Your task to perform on an android device: toggle location history Image 0: 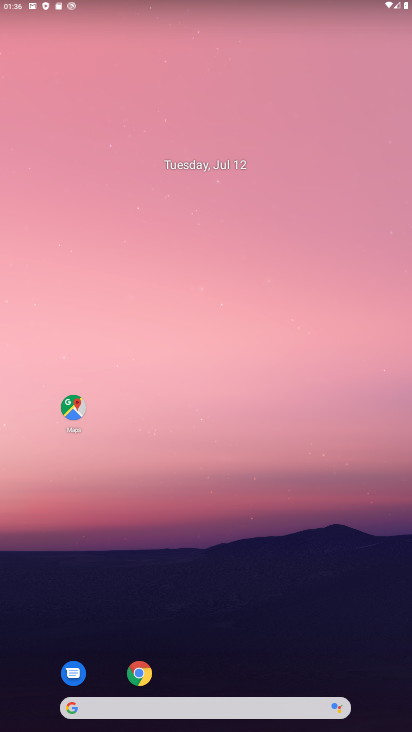
Step 0: press home button
Your task to perform on an android device: toggle location history Image 1: 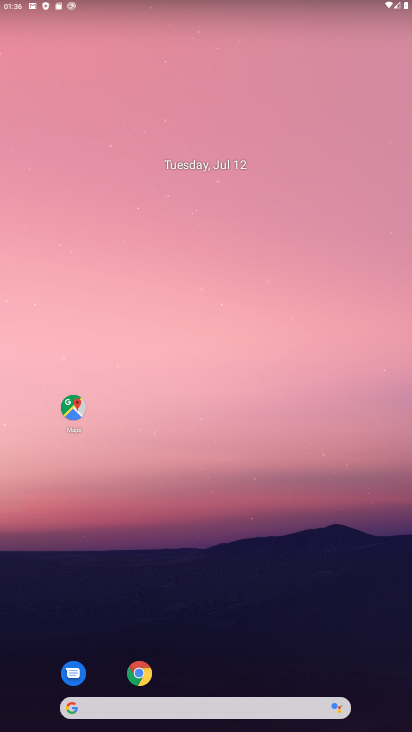
Step 1: drag from (278, 599) to (301, 53)
Your task to perform on an android device: toggle location history Image 2: 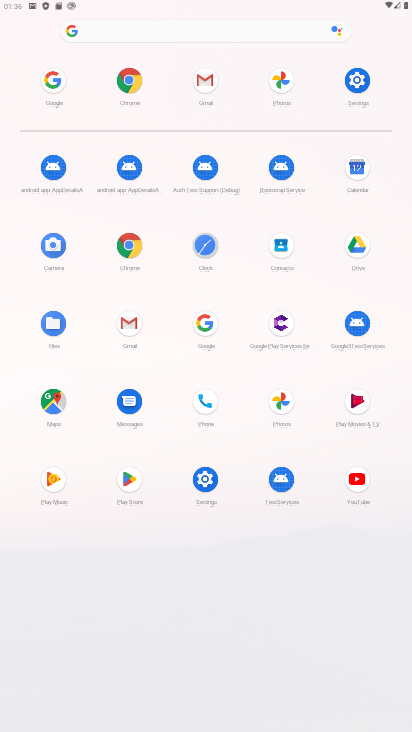
Step 2: click (362, 78)
Your task to perform on an android device: toggle location history Image 3: 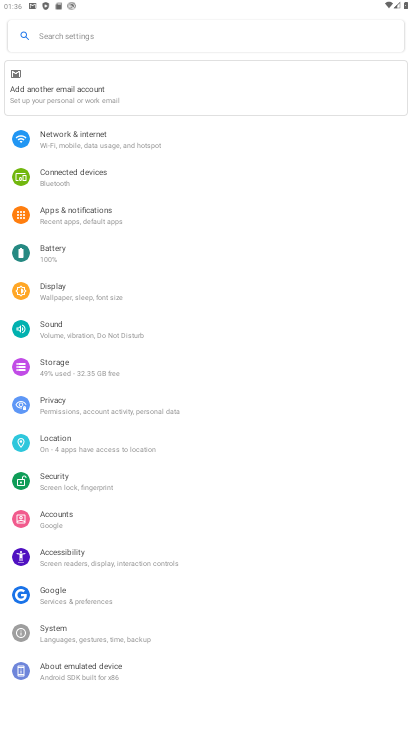
Step 3: click (102, 450)
Your task to perform on an android device: toggle location history Image 4: 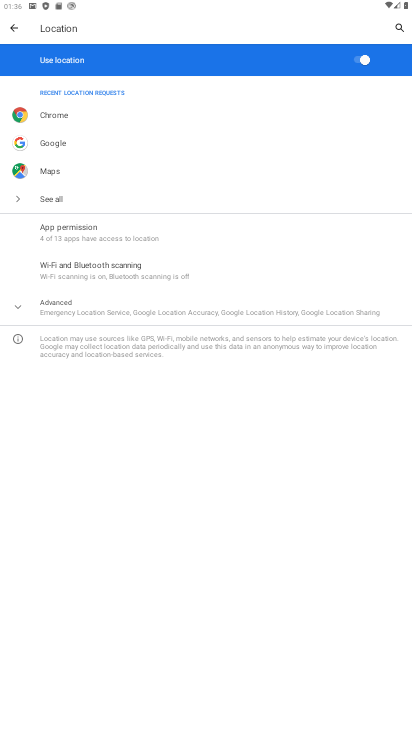
Step 4: click (16, 306)
Your task to perform on an android device: toggle location history Image 5: 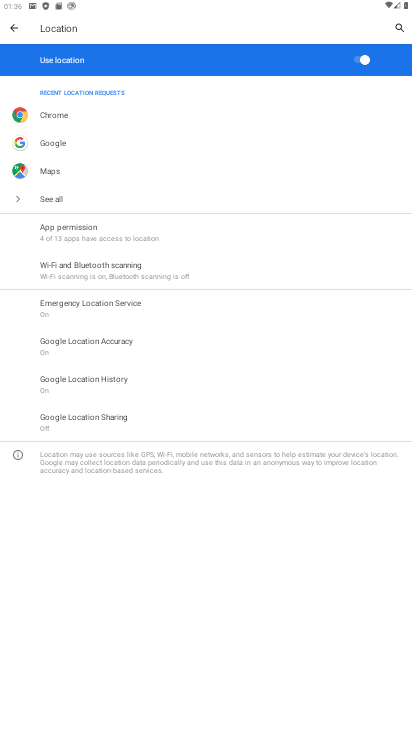
Step 5: click (62, 385)
Your task to perform on an android device: toggle location history Image 6: 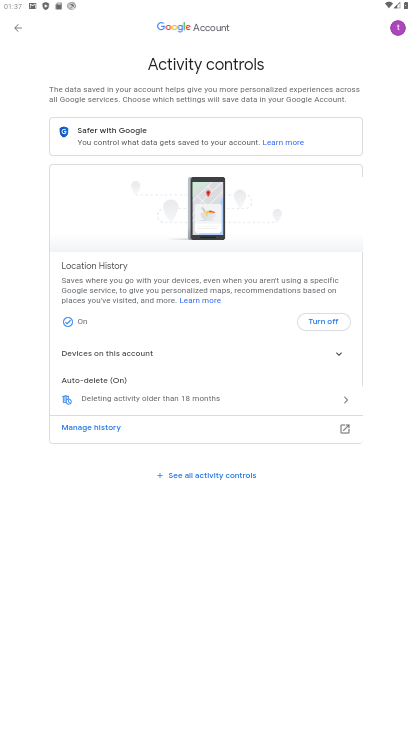
Step 6: click (315, 318)
Your task to perform on an android device: toggle location history Image 7: 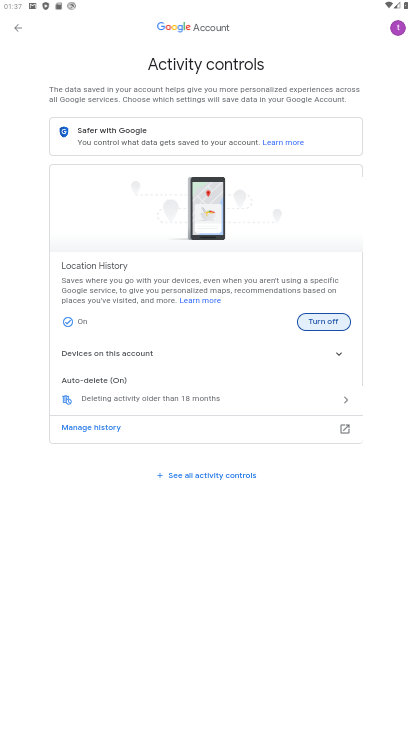
Step 7: click (318, 318)
Your task to perform on an android device: toggle location history Image 8: 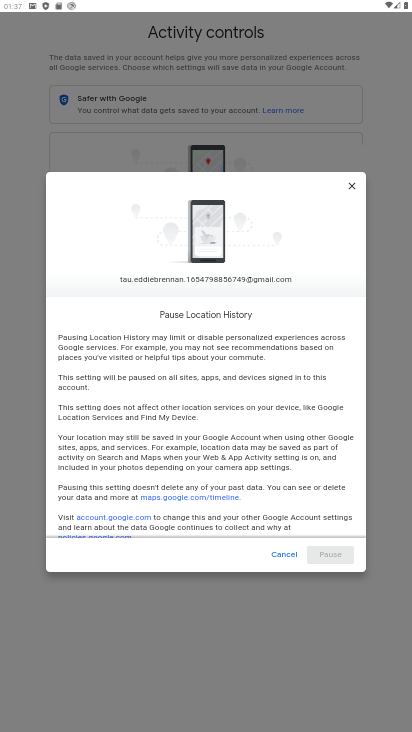
Step 8: click (333, 552)
Your task to perform on an android device: toggle location history Image 9: 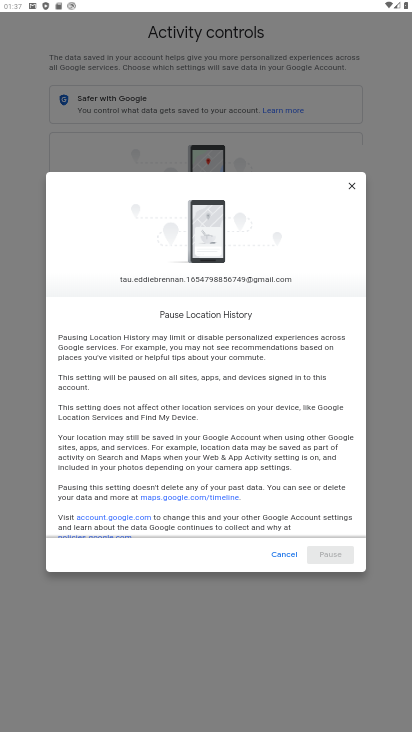
Step 9: drag from (307, 505) to (303, 207)
Your task to perform on an android device: toggle location history Image 10: 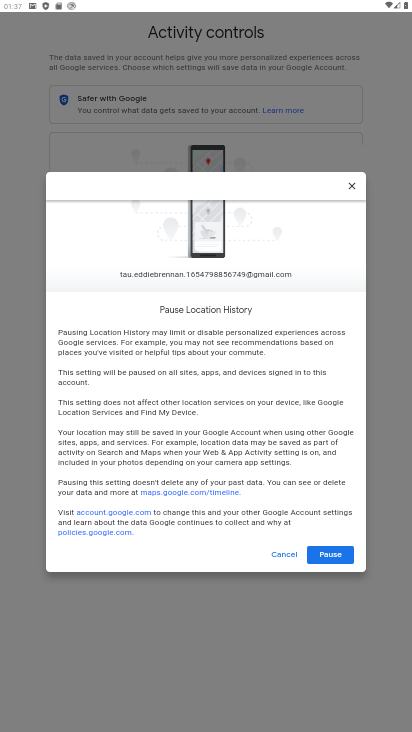
Step 10: click (322, 553)
Your task to perform on an android device: toggle location history Image 11: 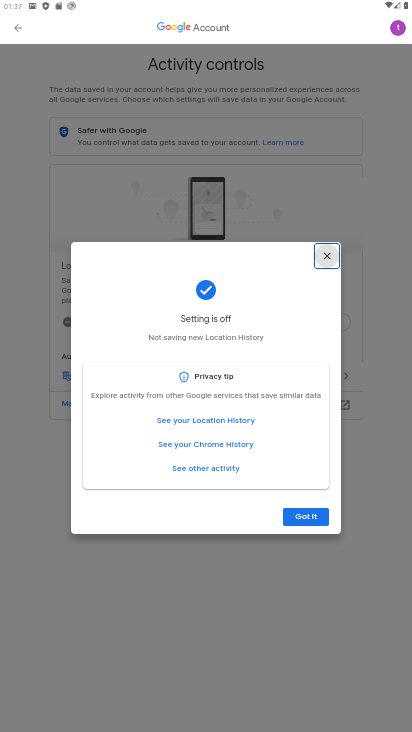
Step 11: click (314, 515)
Your task to perform on an android device: toggle location history Image 12: 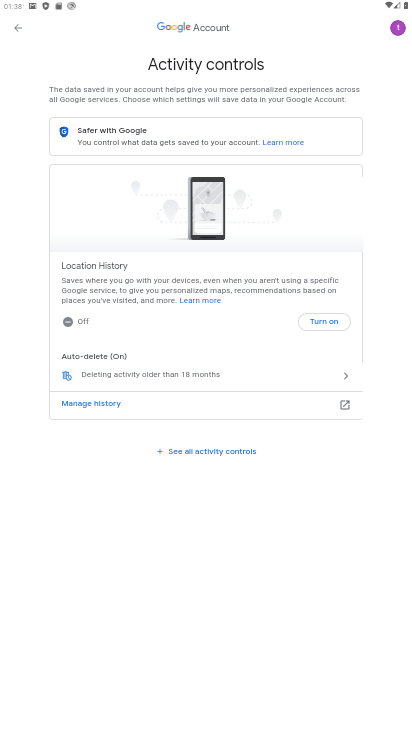
Step 12: task complete